Your task to perform on an android device: toggle improve location accuracy Image 0: 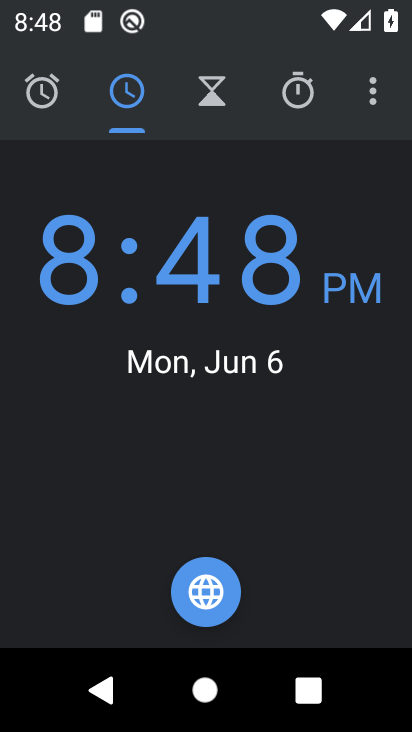
Step 0: press home button
Your task to perform on an android device: toggle improve location accuracy Image 1: 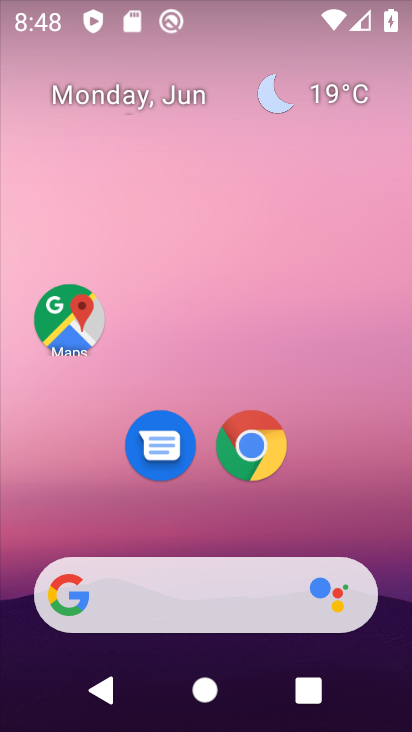
Step 1: drag from (195, 529) to (200, 14)
Your task to perform on an android device: toggle improve location accuracy Image 2: 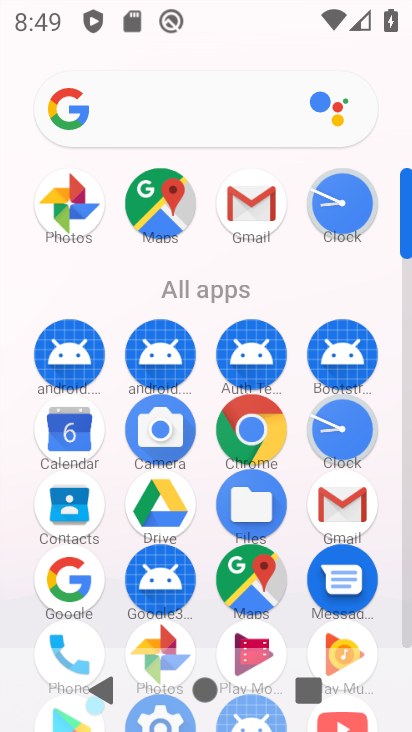
Step 2: drag from (201, 542) to (214, 121)
Your task to perform on an android device: toggle improve location accuracy Image 3: 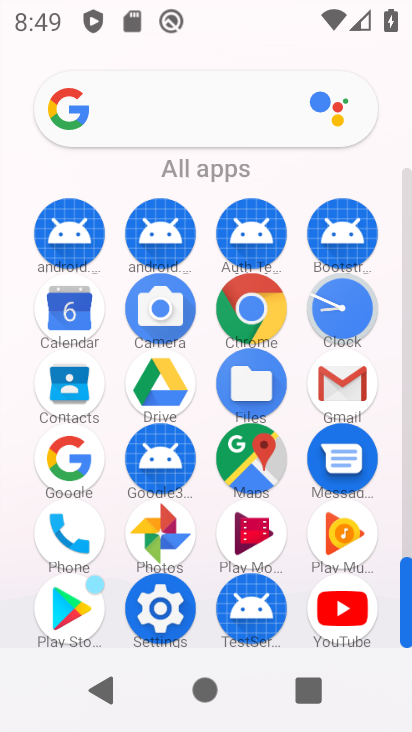
Step 3: click (162, 596)
Your task to perform on an android device: toggle improve location accuracy Image 4: 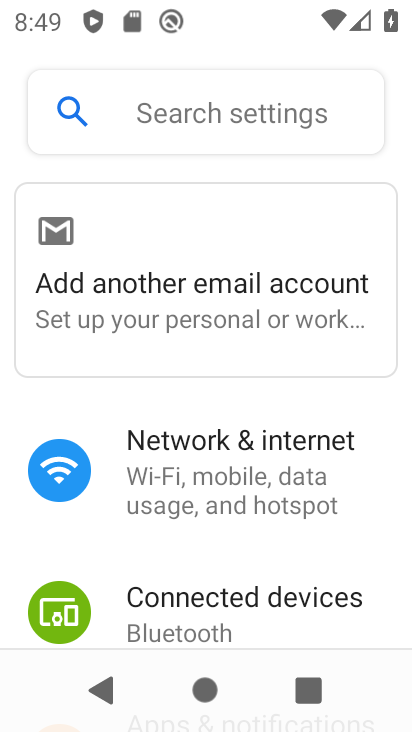
Step 4: drag from (255, 621) to (256, 71)
Your task to perform on an android device: toggle improve location accuracy Image 5: 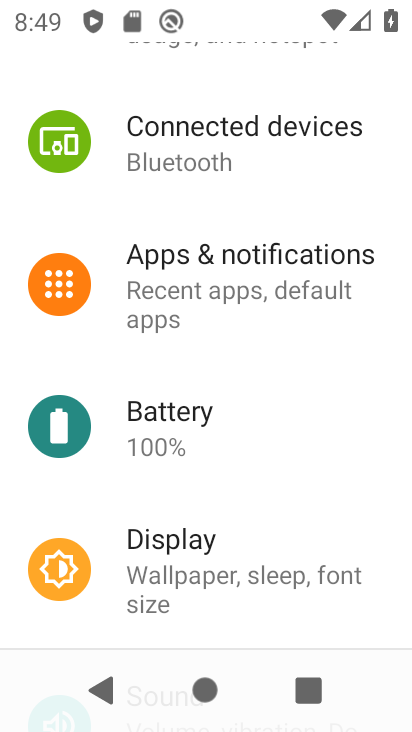
Step 5: drag from (241, 612) to (240, 39)
Your task to perform on an android device: toggle improve location accuracy Image 6: 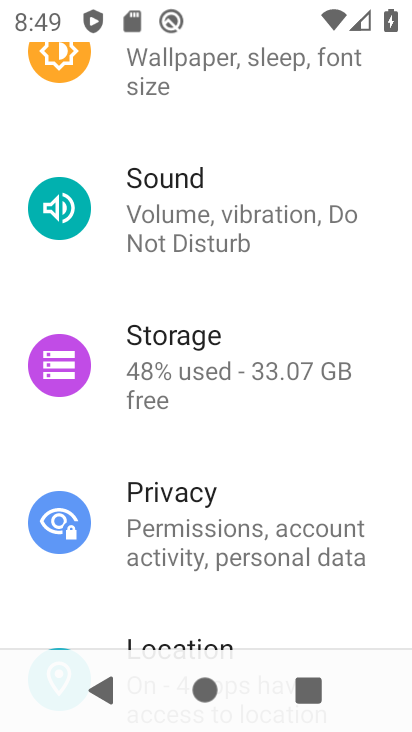
Step 6: click (257, 633)
Your task to perform on an android device: toggle improve location accuracy Image 7: 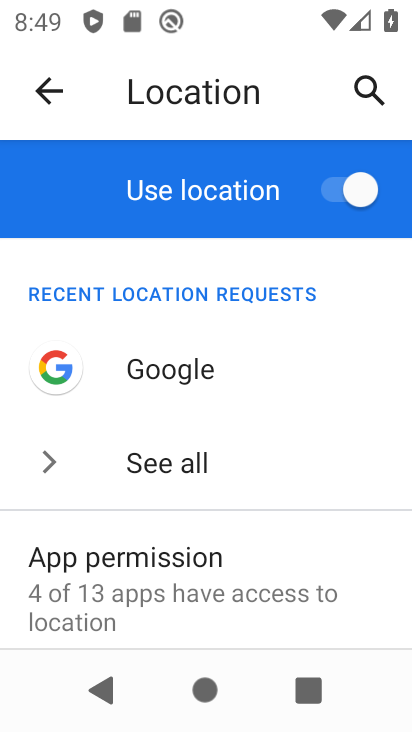
Step 7: drag from (216, 599) to (241, 180)
Your task to perform on an android device: toggle improve location accuracy Image 8: 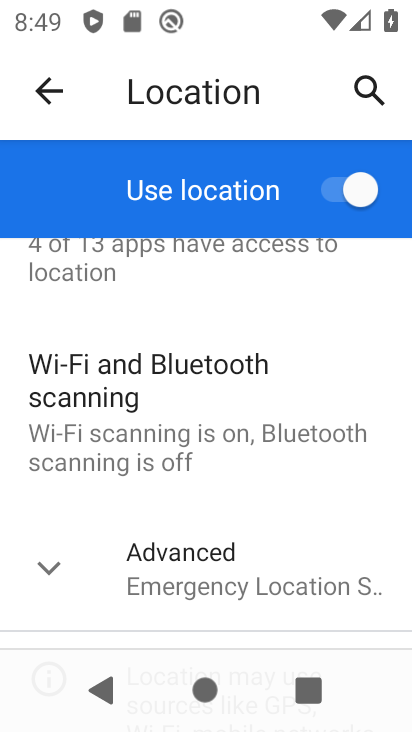
Step 8: click (45, 562)
Your task to perform on an android device: toggle improve location accuracy Image 9: 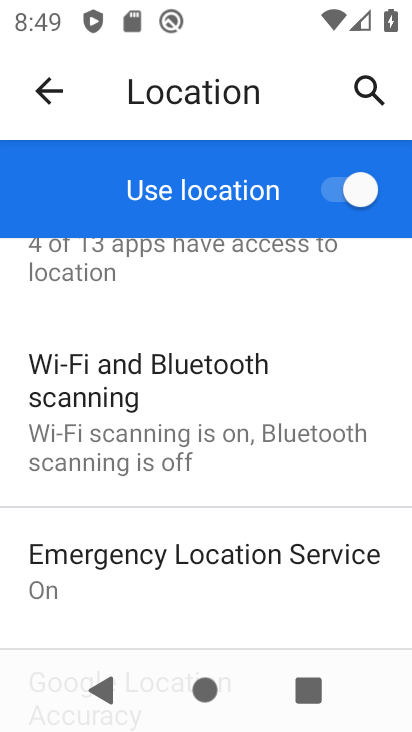
Step 9: drag from (233, 578) to (223, 141)
Your task to perform on an android device: toggle improve location accuracy Image 10: 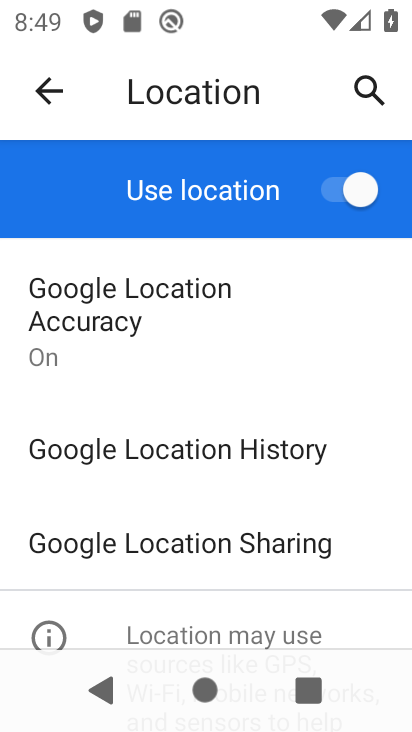
Step 10: click (159, 313)
Your task to perform on an android device: toggle improve location accuracy Image 11: 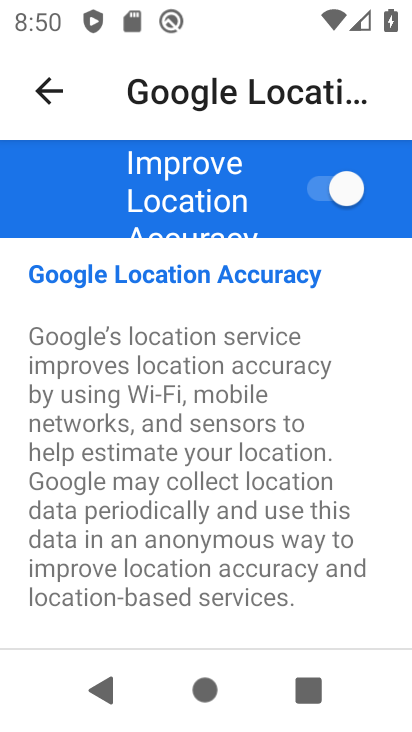
Step 11: click (328, 188)
Your task to perform on an android device: toggle improve location accuracy Image 12: 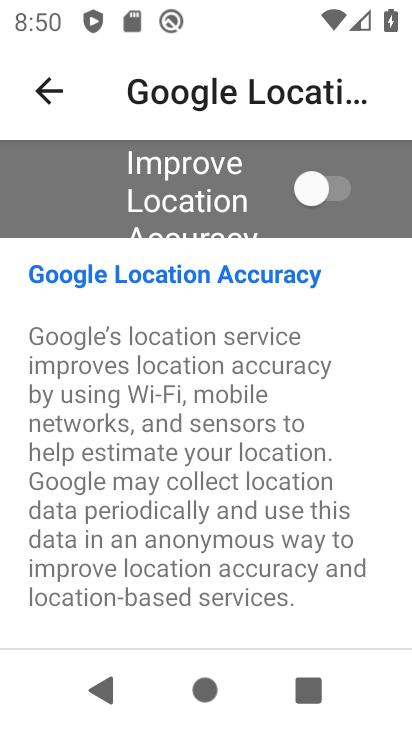
Step 12: task complete